Your task to perform on an android device: turn on sleep mode Image 0: 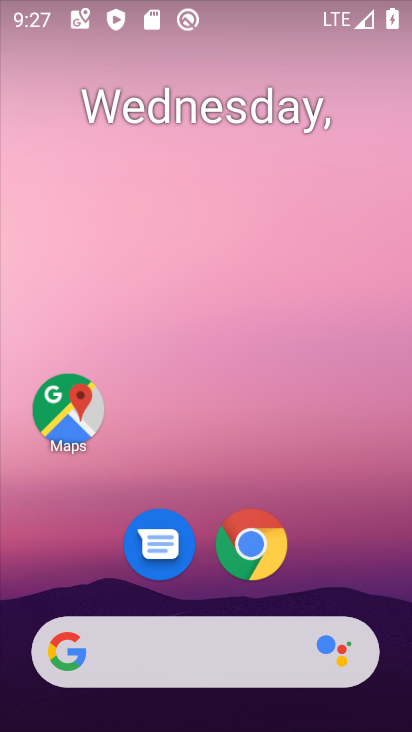
Step 0: drag from (226, 11) to (222, 430)
Your task to perform on an android device: turn on sleep mode Image 1: 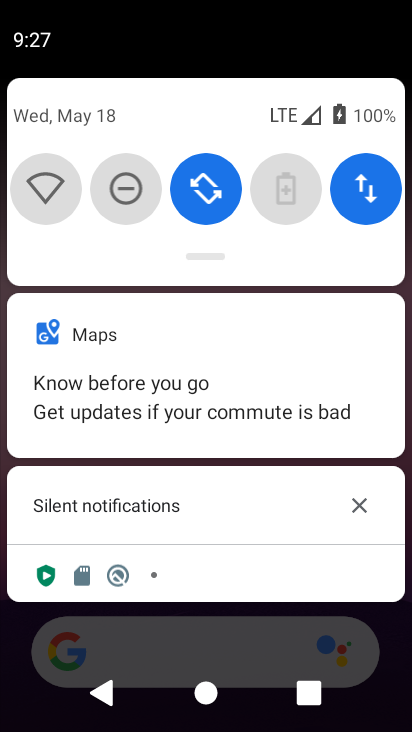
Step 1: drag from (196, 111) to (215, 649)
Your task to perform on an android device: turn on sleep mode Image 2: 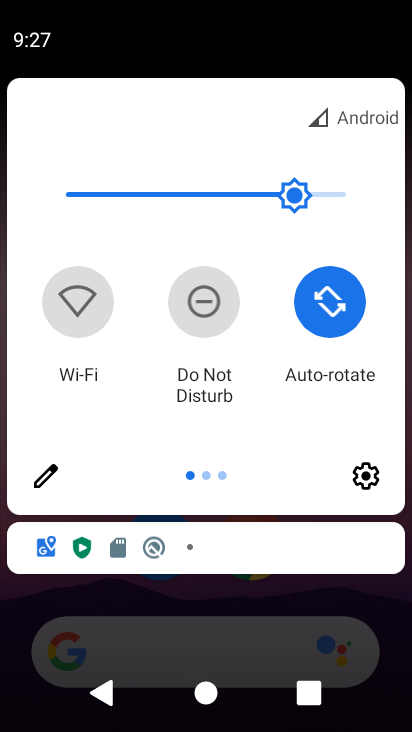
Step 2: click (381, 473)
Your task to perform on an android device: turn on sleep mode Image 3: 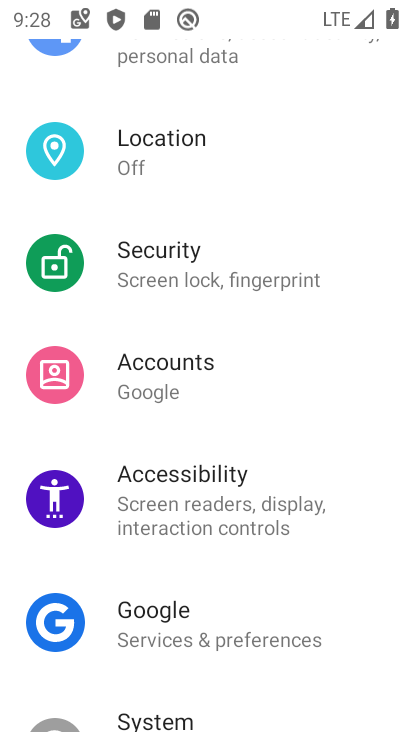
Step 3: task complete